Your task to perform on an android device: Look up the best rated wireless earbuds on Ali Express Image 0: 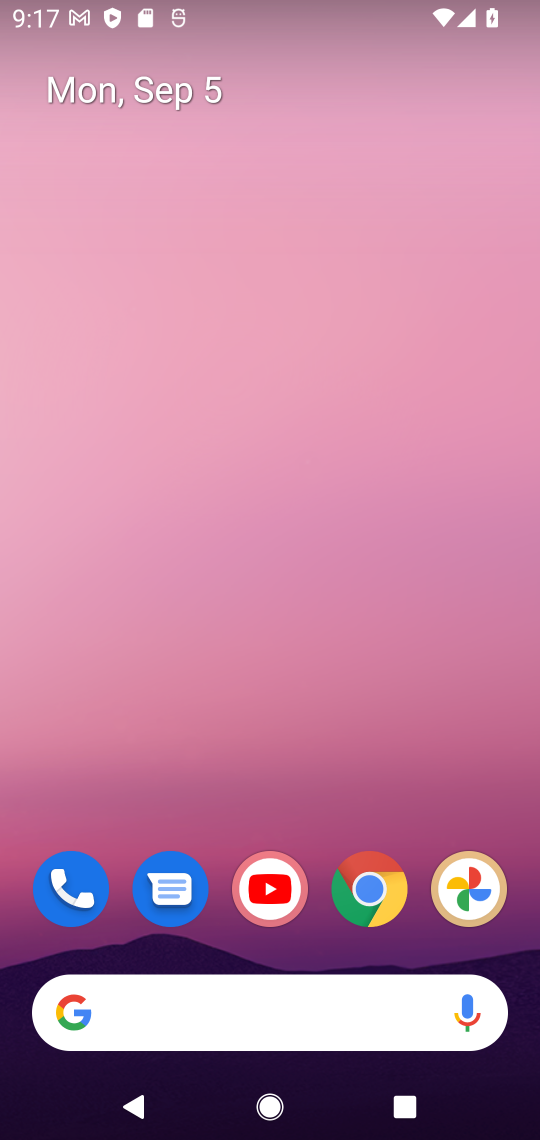
Step 0: click (268, 1015)
Your task to perform on an android device: Look up the best rated wireless earbuds on Ali Express Image 1: 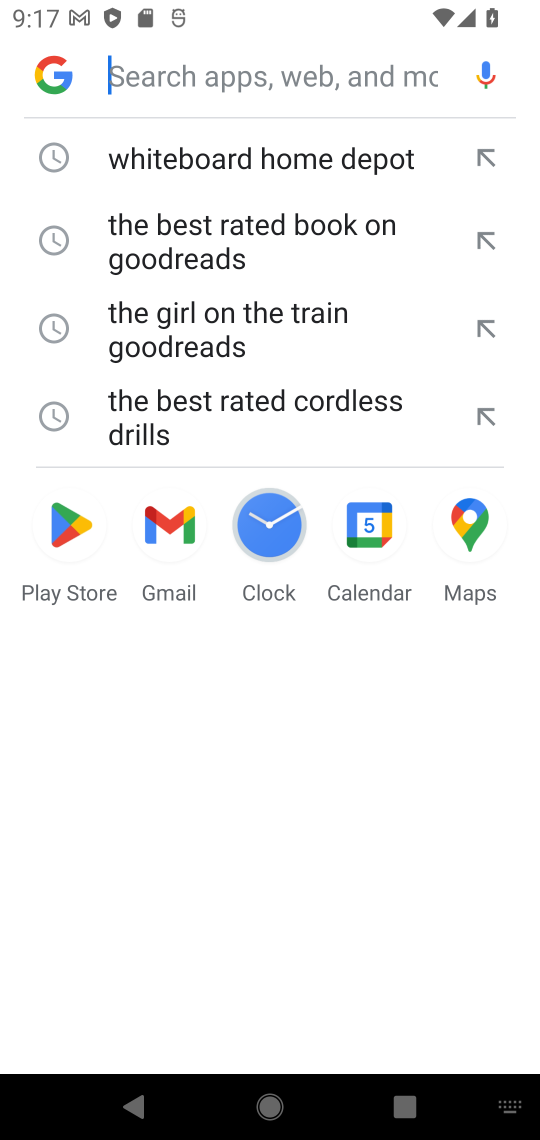
Step 1: type "the best rated wireless earbuds on Ali Express"
Your task to perform on an android device: Look up the best rated wireless earbuds on Ali Express Image 2: 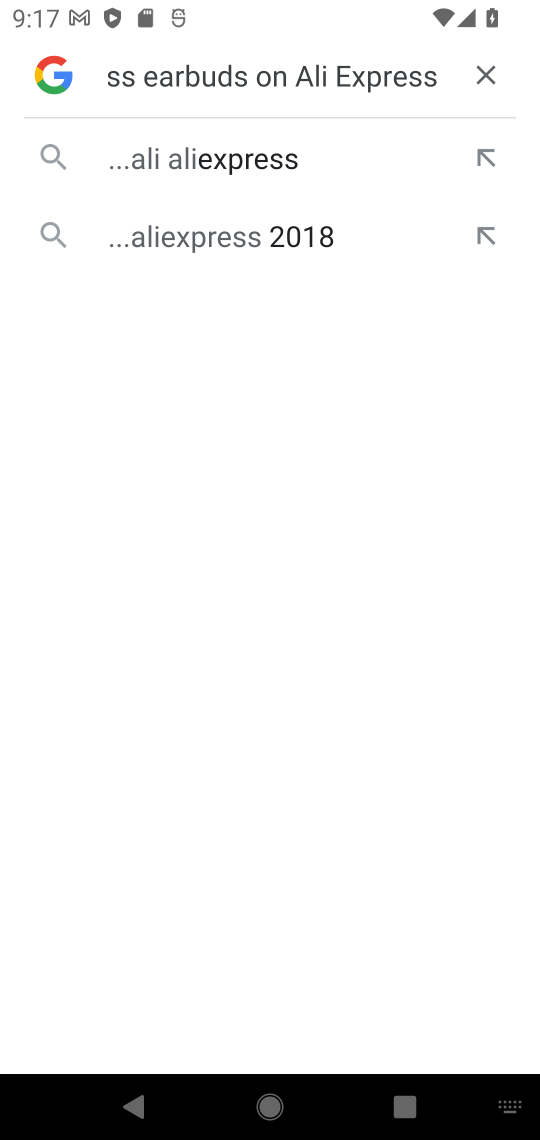
Step 2: click (233, 164)
Your task to perform on an android device: Look up the best rated wireless earbuds on Ali Express Image 3: 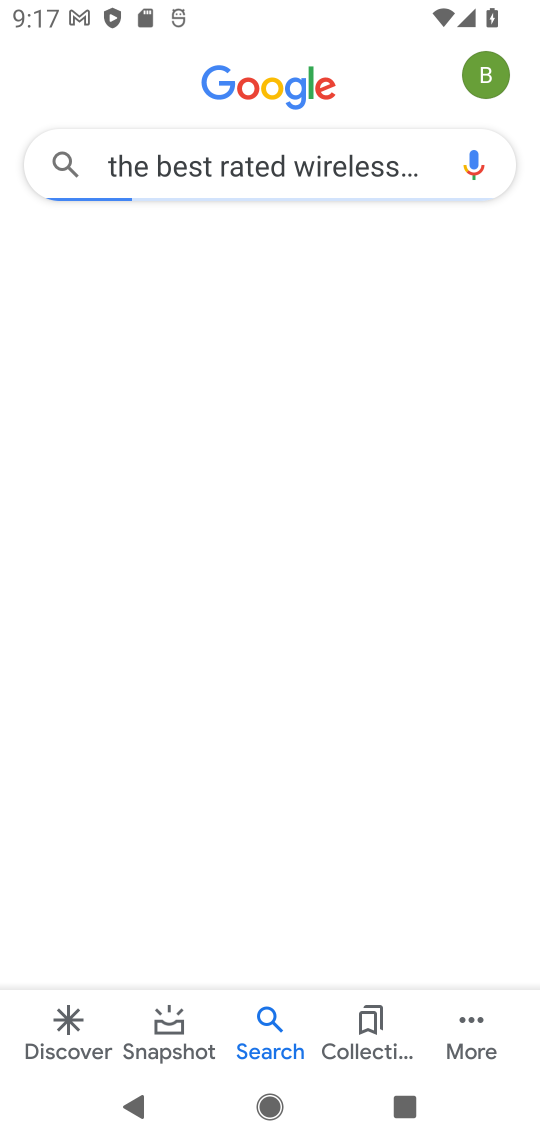
Step 3: click (213, 164)
Your task to perform on an android device: Look up the best rated wireless earbuds on Ali Express Image 4: 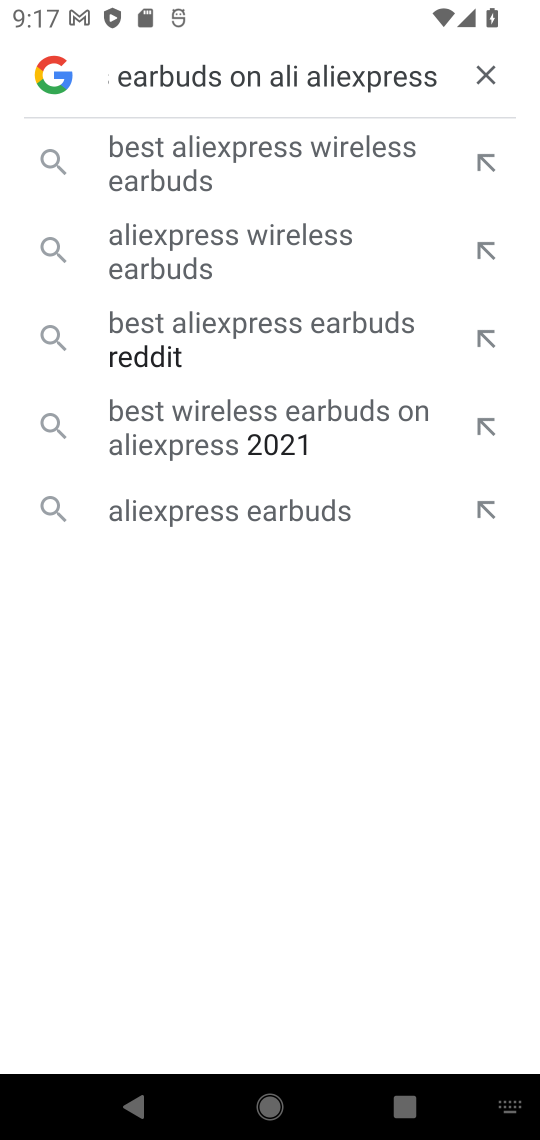
Step 4: click (485, 74)
Your task to perform on an android device: Look up the best rated wireless earbuds on Ali Express Image 5: 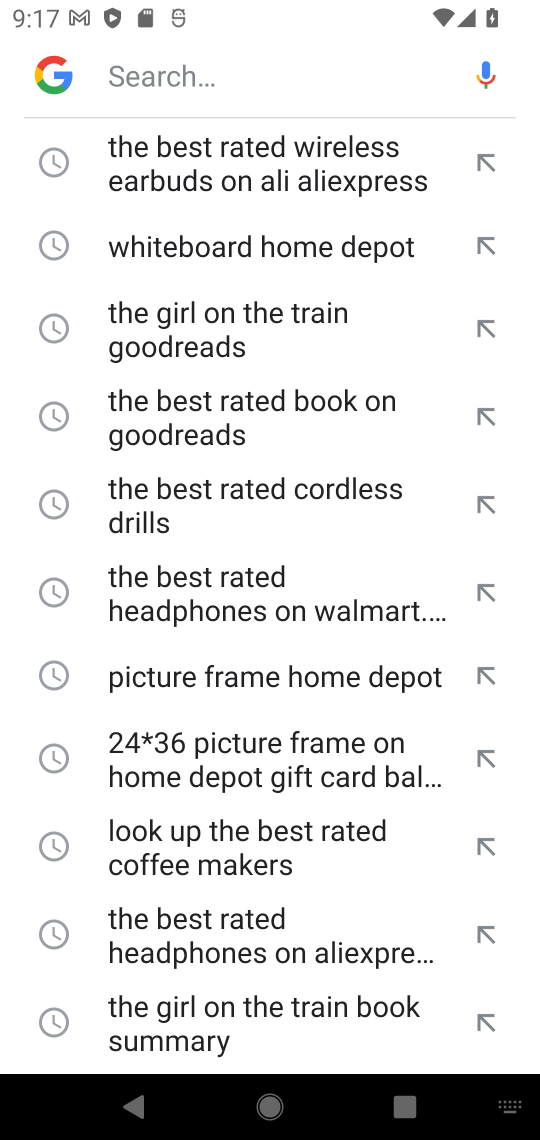
Step 5: click (146, 83)
Your task to perform on an android device: Look up the best rated wireless earbuds on Ali Express Image 6: 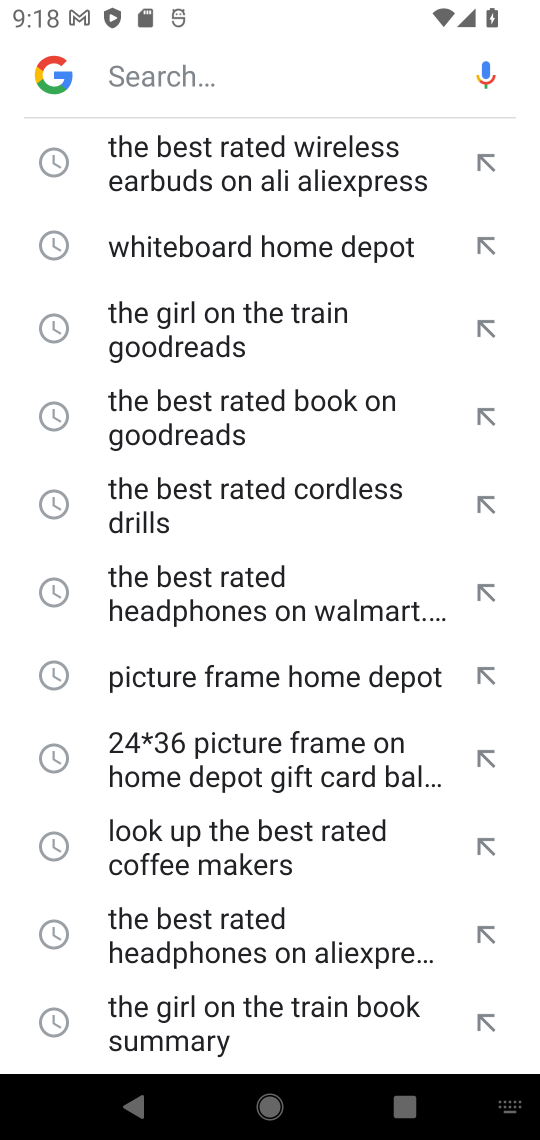
Step 6: type "the best rated wireless earbuds on Ali Express"
Your task to perform on an android device: Look up the best rated wireless earbuds on Ali Express Image 7: 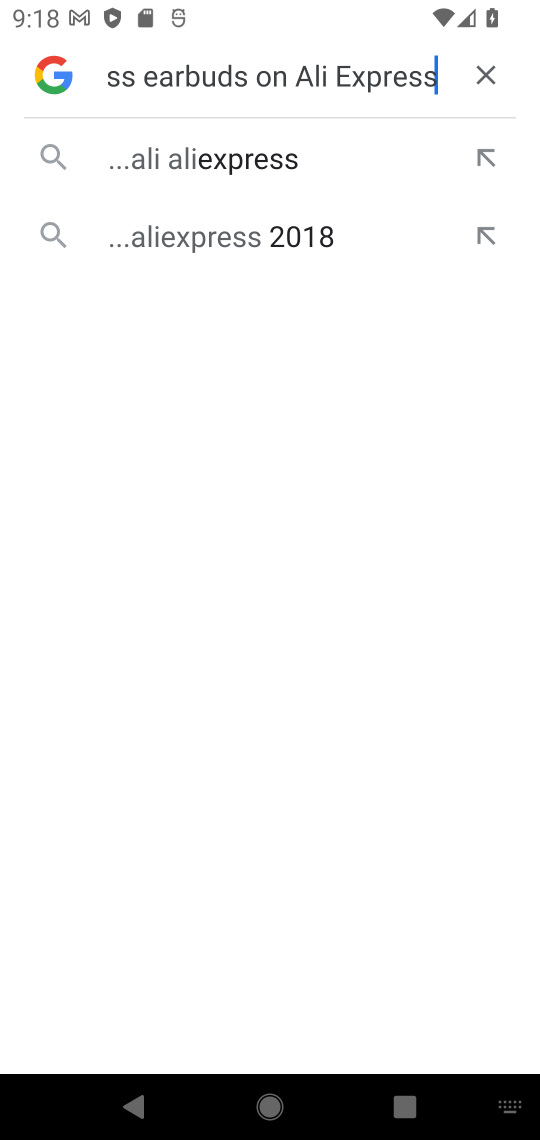
Step 7: click (234, 162)
Your task to perform on an android device: Look up the best rated wireless earbuds on Ali Express Image 8: 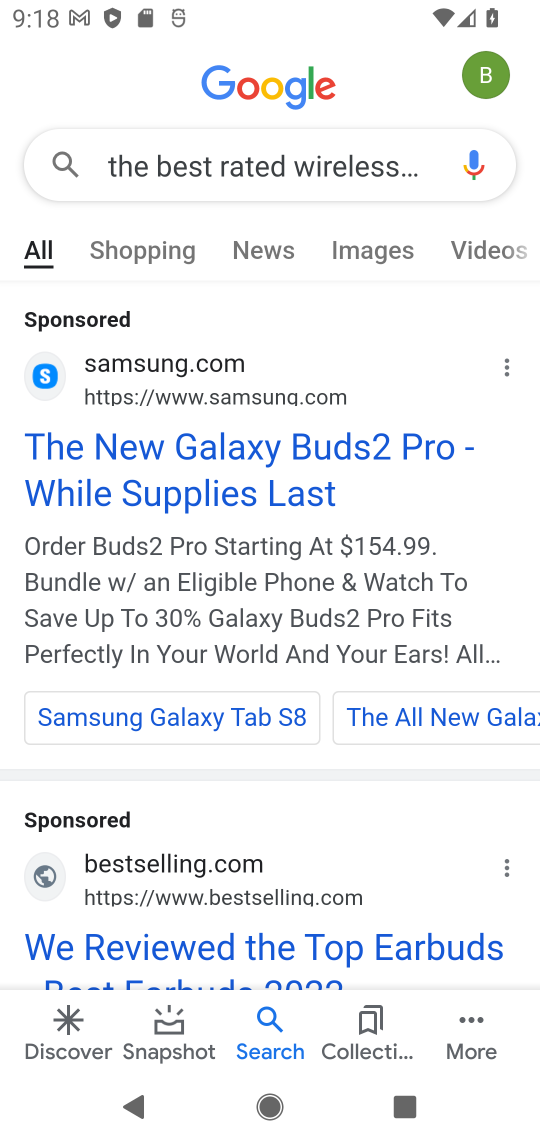
Step 8: task complete